Your task to perform on an android device: Open Google Chrome and click the shortcut for Amazon.com Image 0: 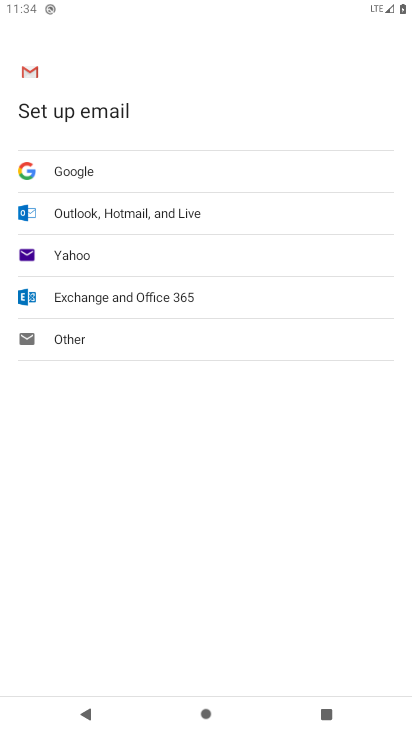
Step 0: press home button
Your task to perform on an android device: Open Google Chrome and click the shortcut for Amazon.com Image 1: 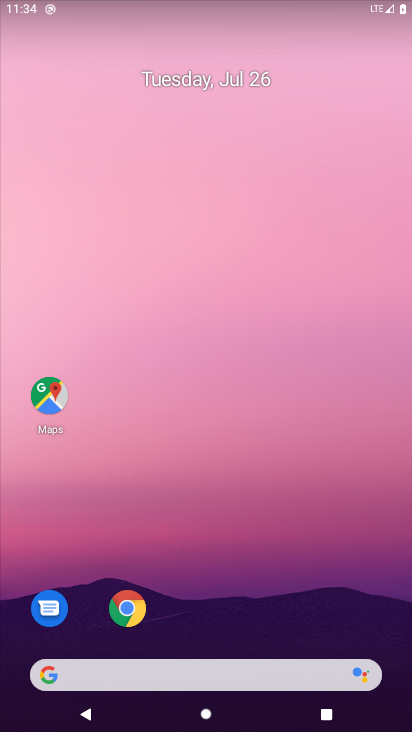
Step 1: click (127, 606)
Your task to perform on an android device: Open Google Chrome and click the shortcut for Amazon.com Image 2: 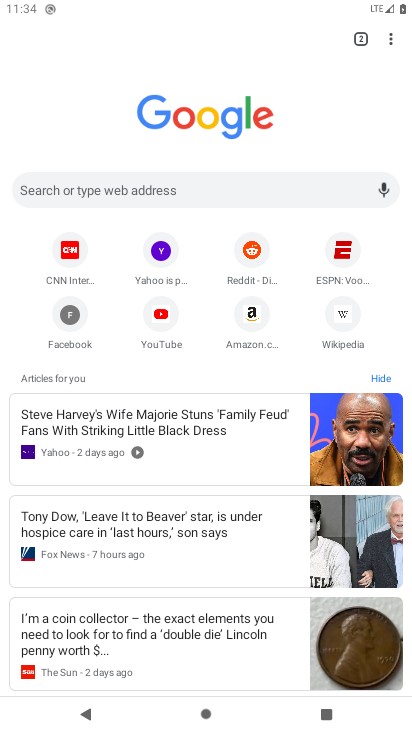
Step 2: click (252, 316)
Your task to perform on an android device: Open Google Chrome and click the shortcut for Amazon.com Image 3: 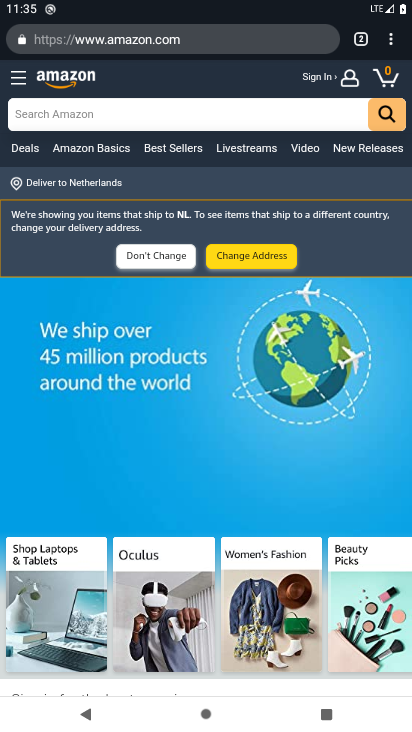
Step 3: task complete